Your task to perform on an android device: Is it going to rain tomorrow? Image 0: 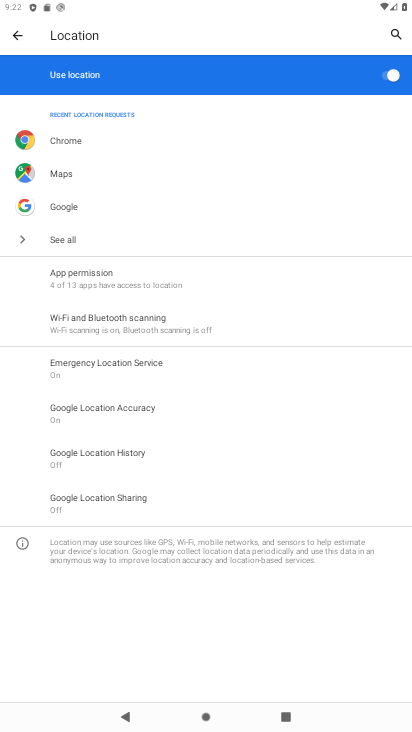
Step 0: press home button
Your task to perform on an android device: Is it going to rain tomorrow? Image 1: 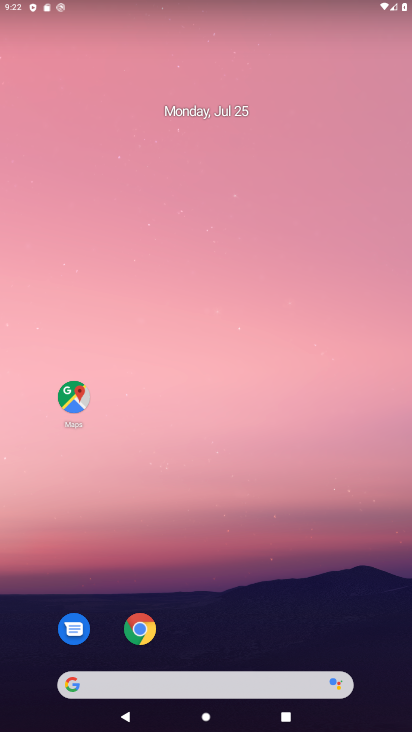
Step 1: drag from (343, 630) to (360, 240)
Your task to perform on an android device: Is it going to rain tomorrow? Image 2: 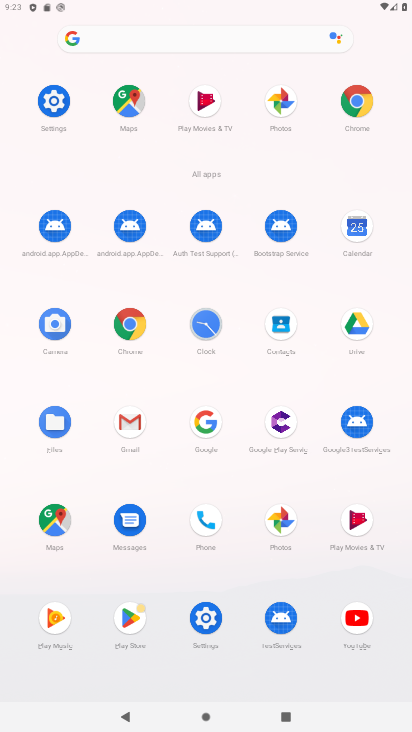
Step 2: click (361, 99)
Your task to perform on an android device: Is it going to rain tomorrow? Image 3: 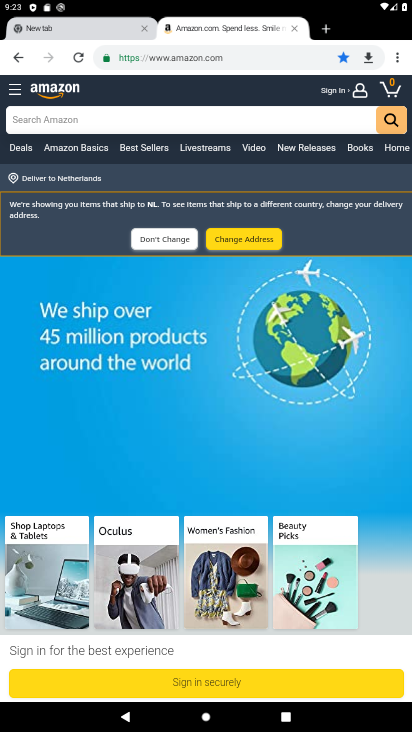
Step 3: click (220, 54)
Your task to perform on an android device: Is it going to rain tomorrow? Image 4: 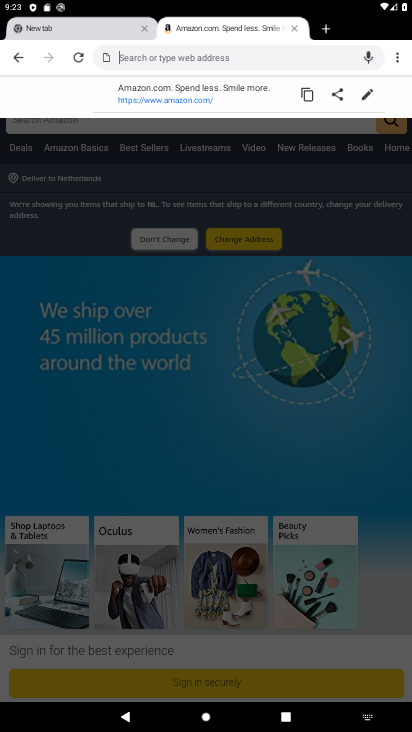
Step 4: type "weather"
Your task to perform on an android device: Is it going to rain tomorrow? Image 5: 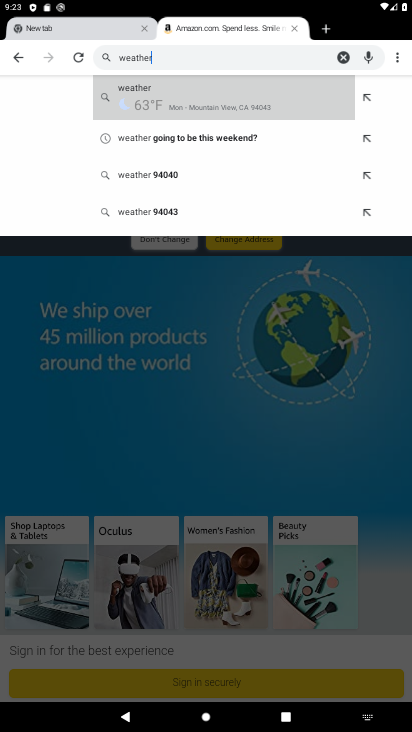
Step 5: click (159, 97)
Your task to perform on an android device: Is it going to rain tomorrow? Image 6: 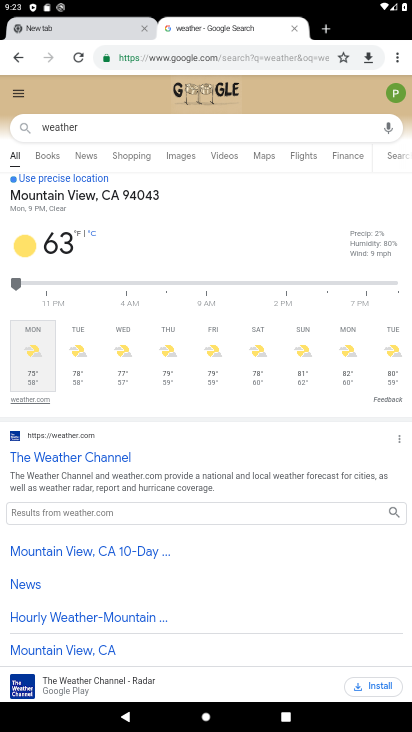
Step 6: click (86, 343)
Your task to perform on an android device: Is it going to rain tomorrow? Image 7: 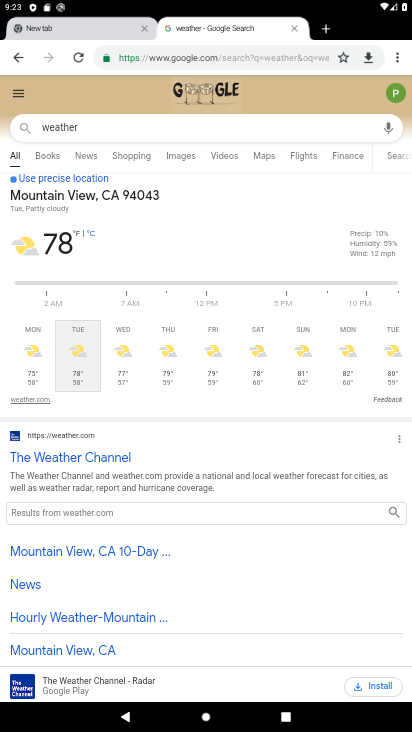
Step 7: task complete